Your task to perform on an android device: Is it going to rain today? Image 0: 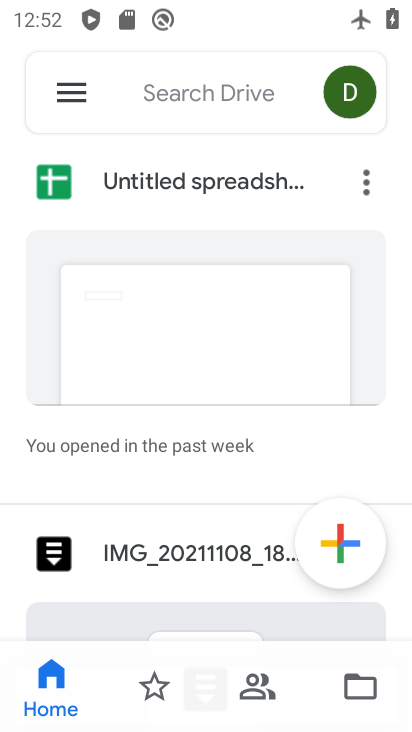
Step 0: press home button
Your task to perform on an android device: Is it going to rain today? Image 1: 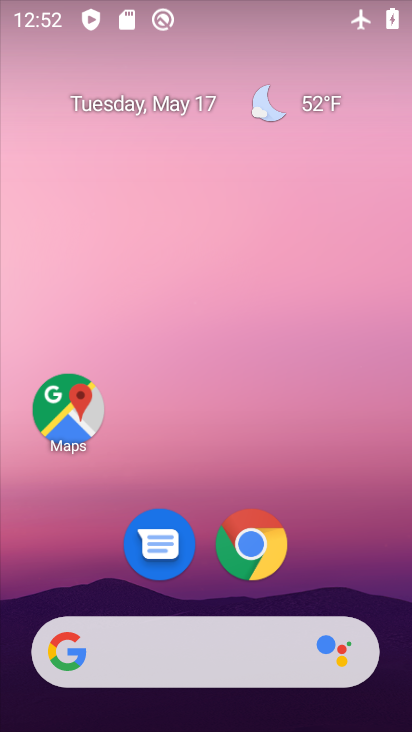
Step 1: drag from (404, 573) to (317, 100)
Your task to perform on an android device: Is it going to rain today? Image 2: 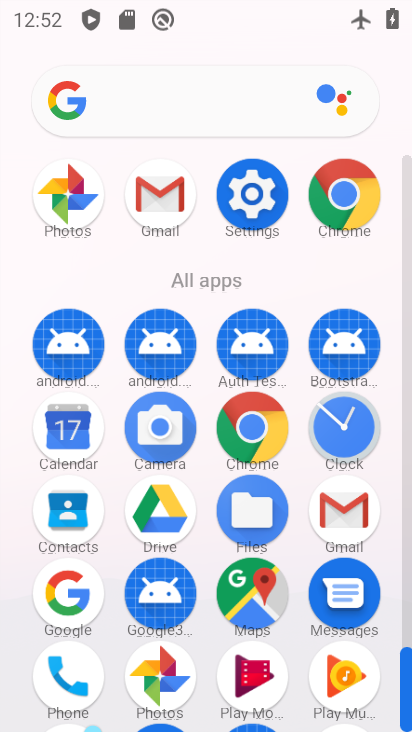
Step 2: click (269, 424)
Your task to perform on an android device: Is it going to rain today? Image 3: 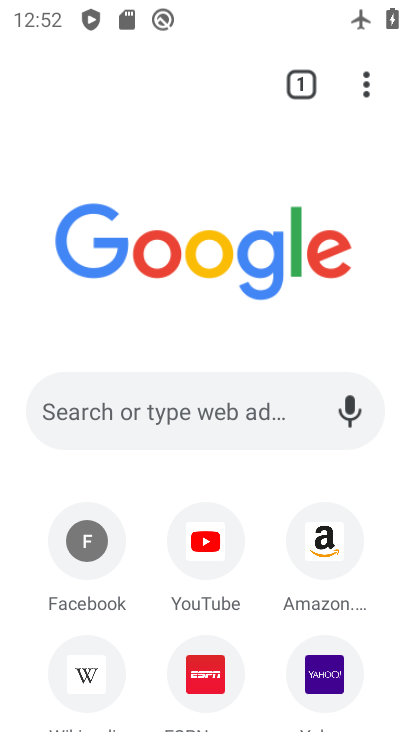
Step 3: click (229, 414)
Your task to perform on an android device: Is it going to rain today? Image 4: 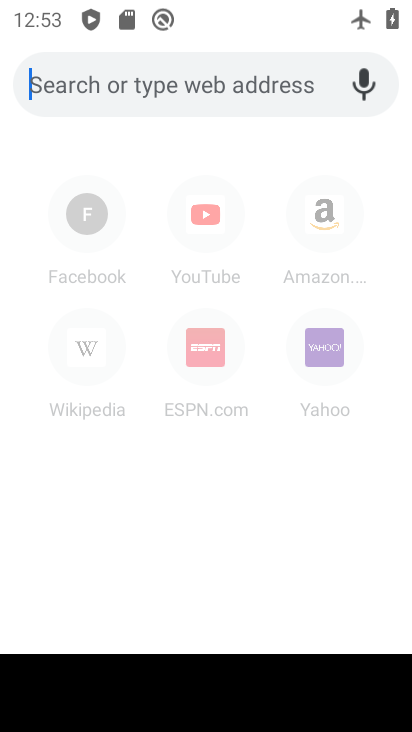
Step 4: type "is it going to rain today"
Your task to perform on an android device: Is it going to rain today? Image 5: 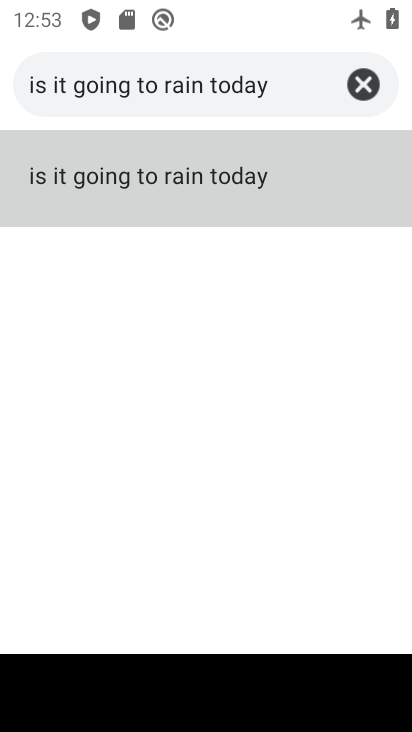
Step 5: click (223, 177)
Your task to perform on an android device: Is it going to rain today? Image 6: 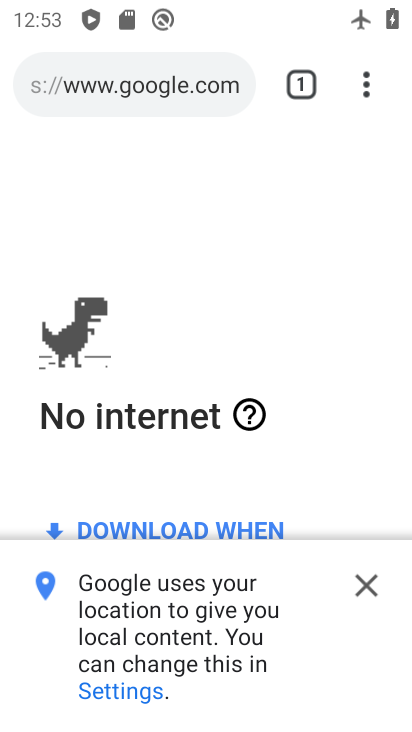
Step 6: click (355, 583)
Your task to perform on an android device: Is it going to rain today? Image 7: 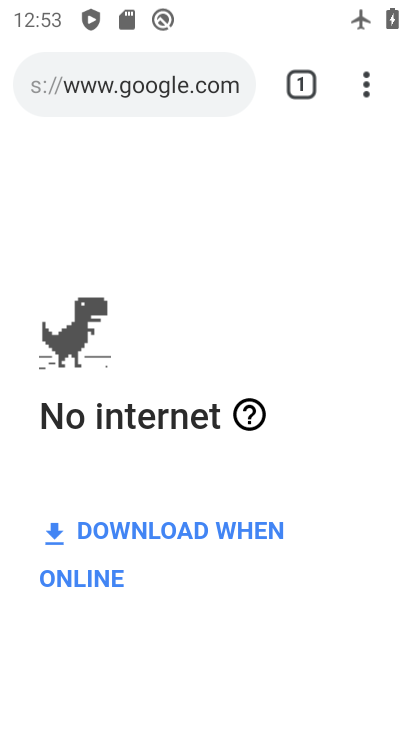
Step 7: task complete